Your task to perform on an android device: Go to calendar. Show me events next week Image 0: 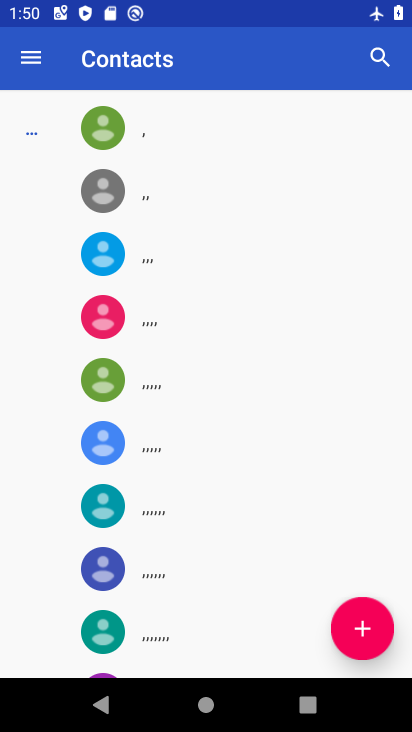
Step 0: press home button
Your task to perform on an android device: Go to calendar. Show me events next week Image 1: 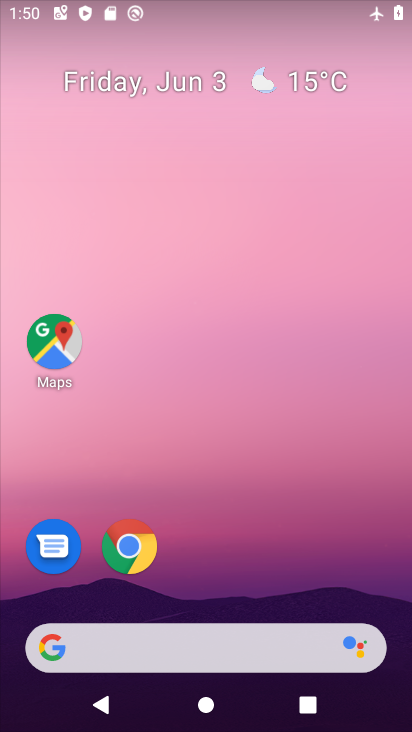
Step 1: drag from (344, 542) to (312, 54)
Your task to perform on an android device: Go to calendar. Show me events next week Image 2: 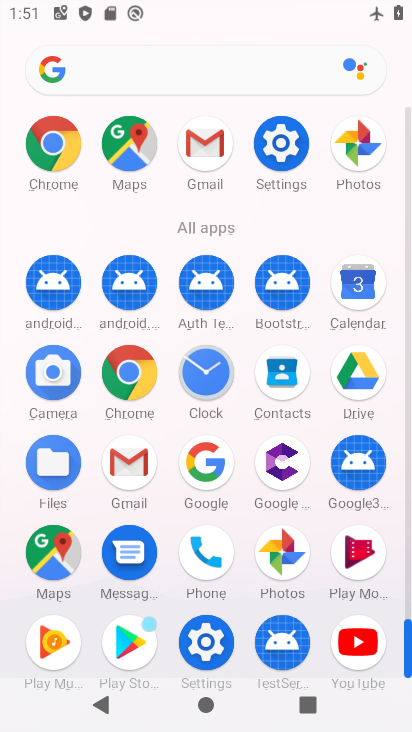
Step 2: click (362, 294)
Your task to perform on an android device: Go to calendar. Show me events next week Image 3: 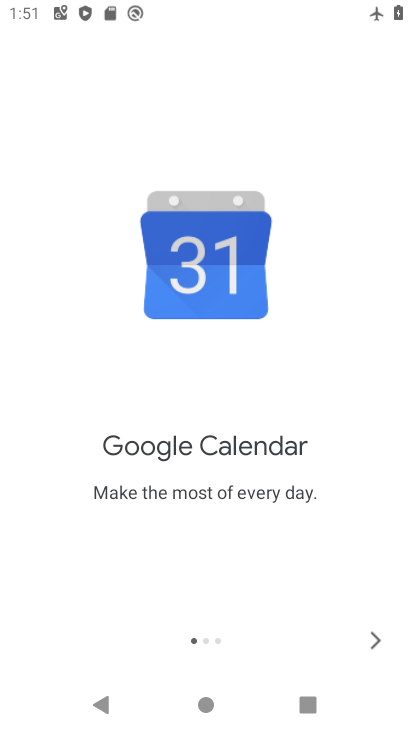
Step 3: click (384, 642)
Your task to perform on an android device: Go to calendar. Show me events next week Image 4: 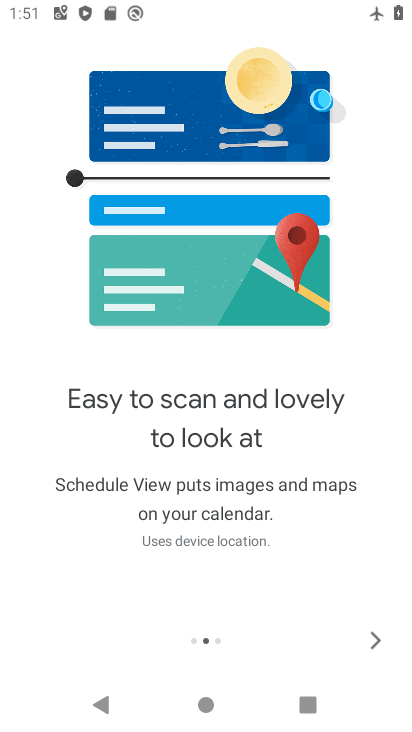
Step 4: click (384, 644)
Your task to perform on an android device: Go to calendar. Show me events next week Image 5: 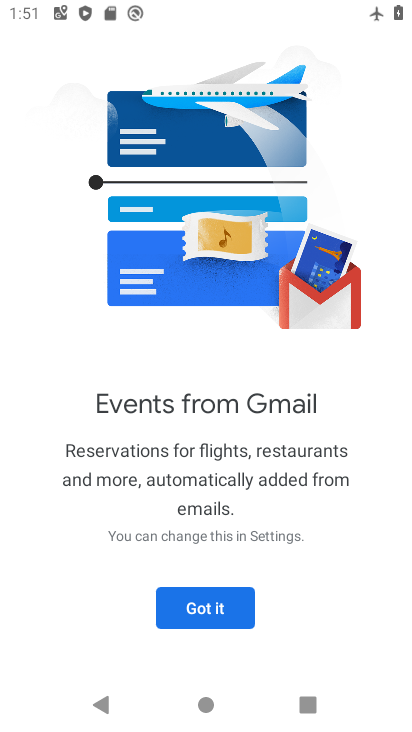
Step 5: click (212, 608)
Your task to perform on an android device: Go to calendar. Show me events next week Image 6: 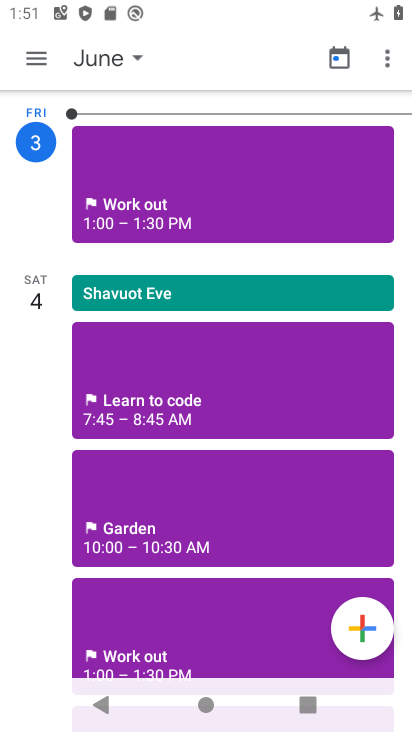
Step 6: click (117, 40)
Your task to perform on an android device: Go to calendar. Show me events next week Image 7: 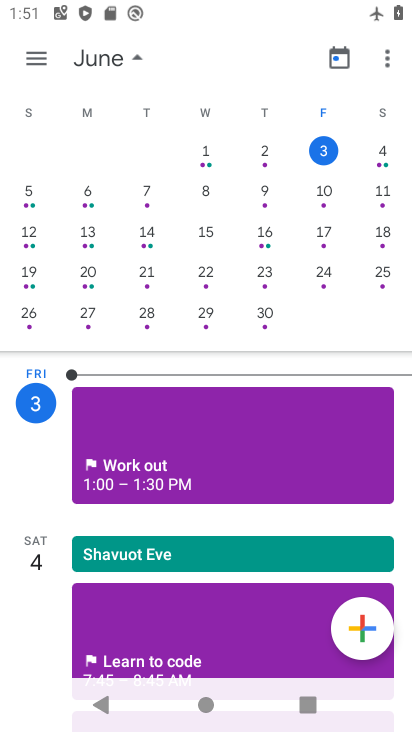
Step 7: click (336, 201)
Your task to perform on an android device: Go to calendar. Show me events next week Image 8: 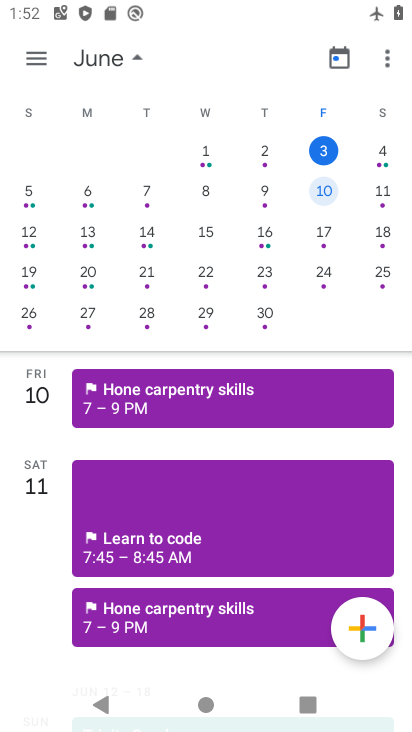
Step 8: task complete